Your task to perform on an android device: star an email in the gmail app Image 0: 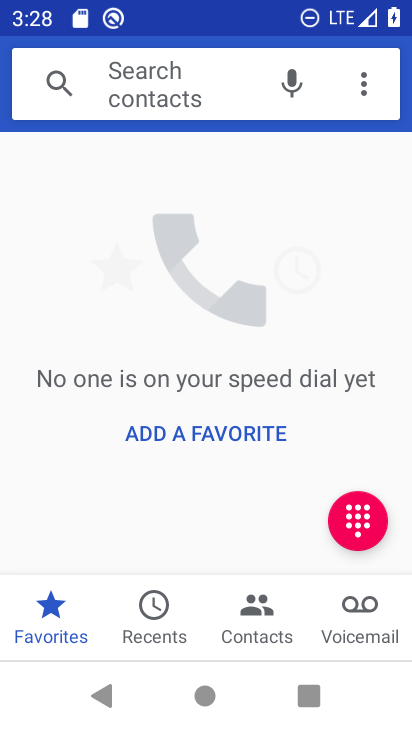
Step 0: press back button
Your task to perform on an android device: star an email in the gmail app Image 1: 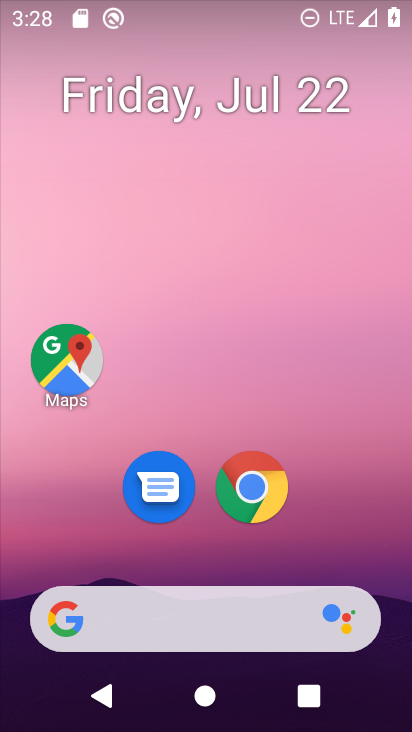
Step 1: drag from (235, 506) to (299, 14)
Your task to perform on an android device: star an email in the gmail app Image 2: 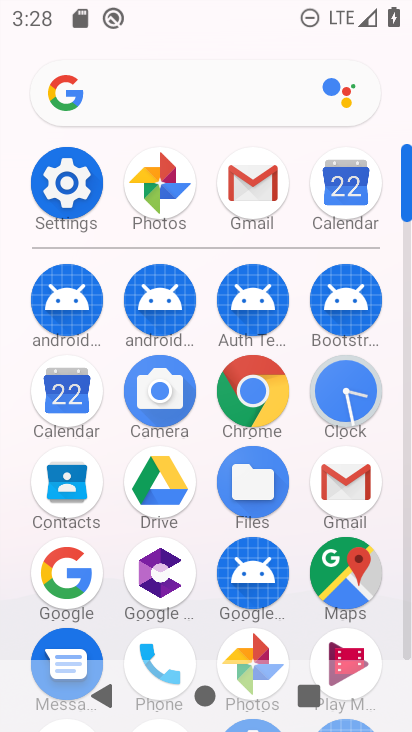
Step 2: click (255, 186)
Your task to perform on an android device: star an email in the gmail app Image 3: 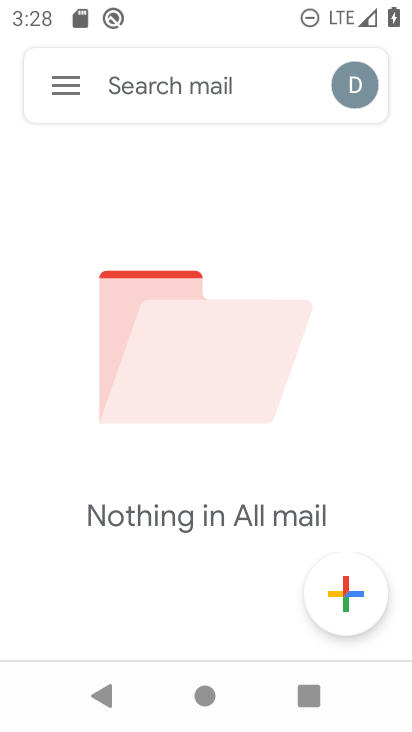
Step 3: task complete